Your task to perform on an android device: What's the weather going to be tomorrow? Image 0: 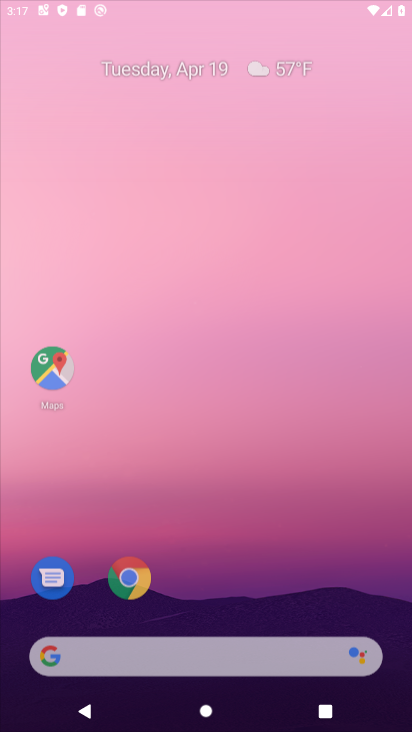
Step 0: click (204, 125)
Your task to perform on an android device: What's the weather going to be tomorrow? Image 1: 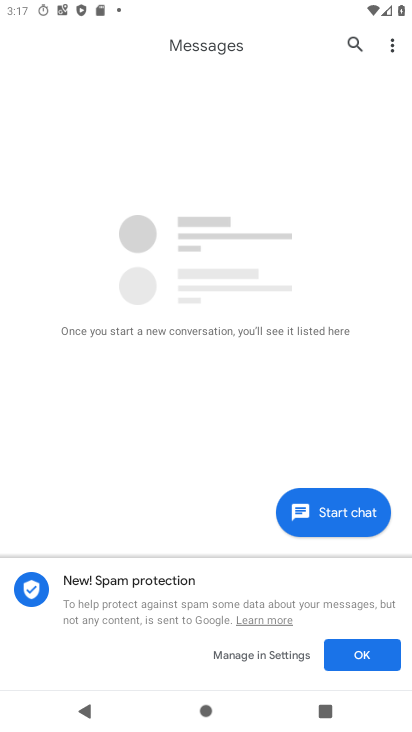
Step 1: press home button
Your task to perform on an android device: What's the weather going to be tomorrow? Image 2: 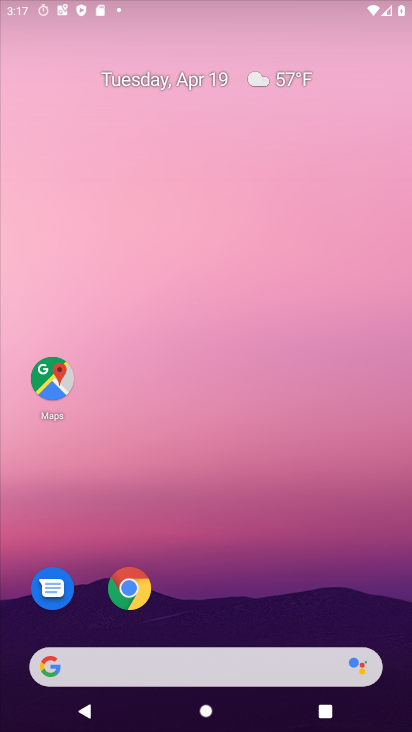
Step 2: drag from (217, 593) to (409, 181)
Your task to perform on an android device: What's the weather going to be tomorrow? Image 3: 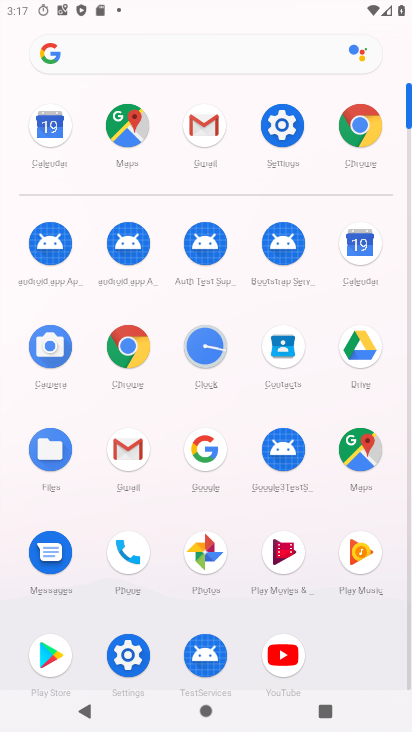
Step 3: click (131, 349)
Your task to perform on an android device: What's the weather going to be tomorrow? Image 4: 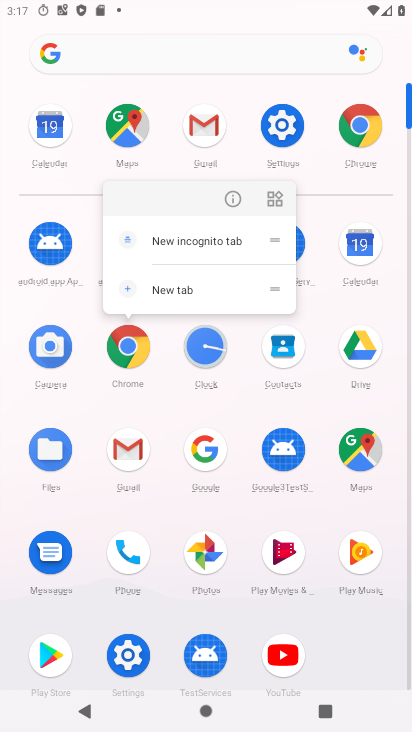
Step 4: click (226, 193)
Your task to perform on an android device: What's the weather going to be tomorrow? Image 5: 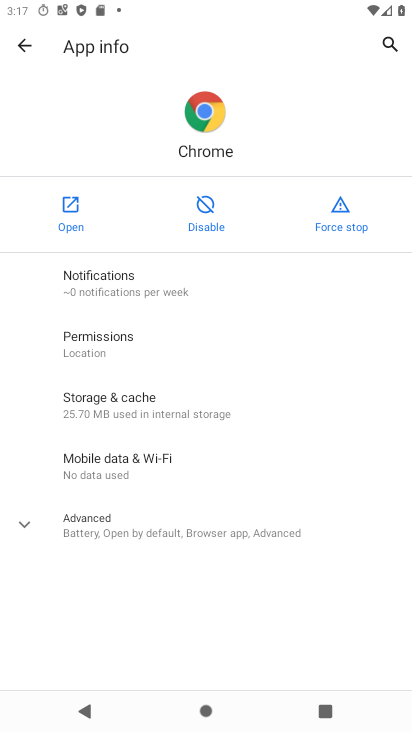
Step 5: click (84, 206)
Your task to perform on an android device: What's the weather going to be tomorrow? Image 6: 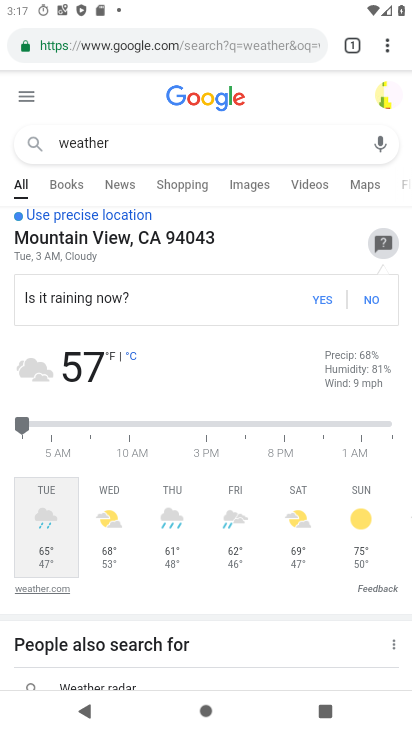
Step 6: click (213, 145)
Your task to perform on an android device: What's the weather going to be tomorrow? Image 7: 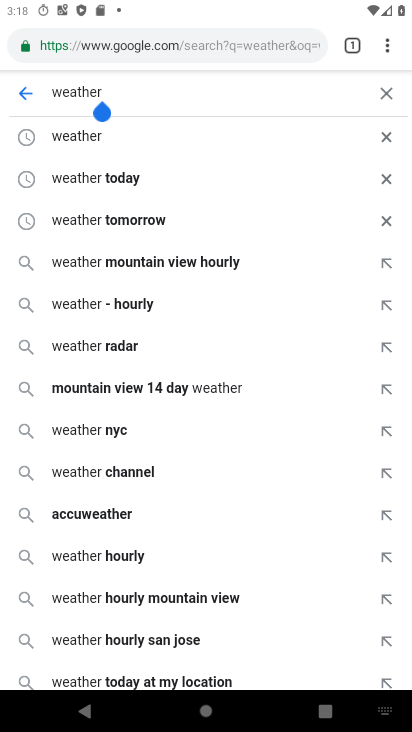
Step 7: type " tomorrow"
Your task to perform on an android device: What's the weather going to be tomorrow? Image 8: 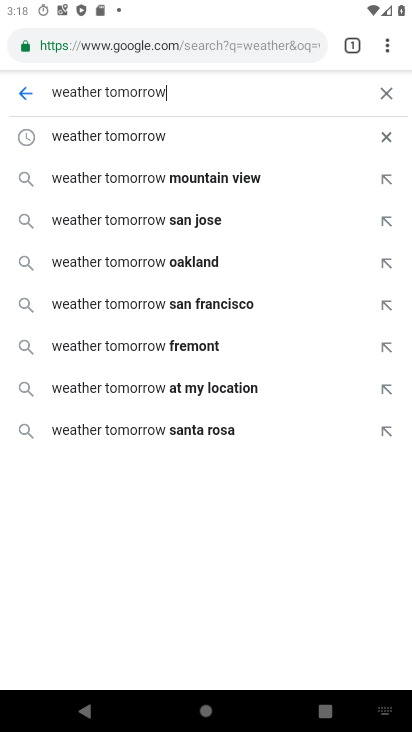
Step 8: click (100, 134)
Your task to perform on an android device: What's the weather going to be tomorrow? Image 9: 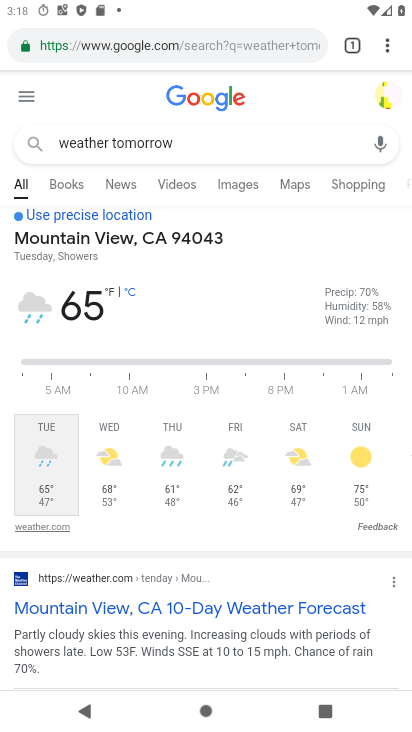
Step 9: task complete